Your task to perform on an android device: make emails show in primary in the gmail app Image 0: 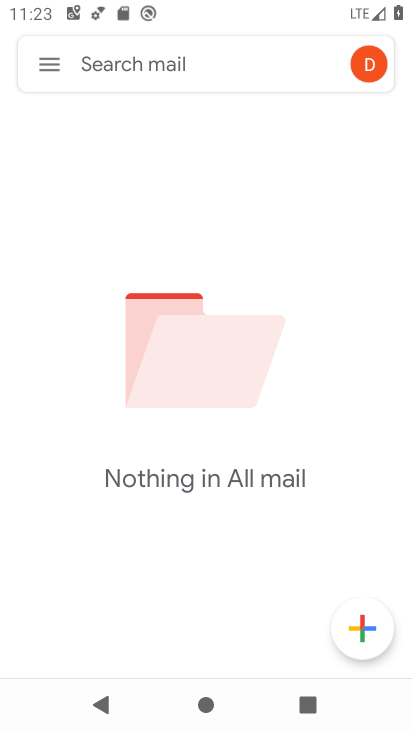
Step 0: click (46, 63)
Your task to perform on an android device: make emails show in primary in the gmail app Image 1: 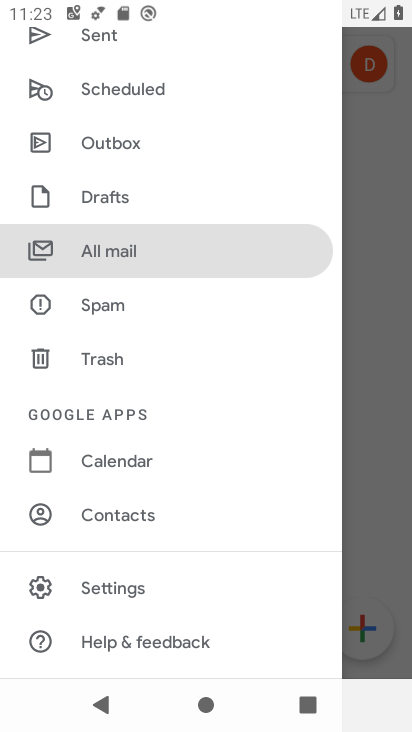
Step 1: click (111, 586)
Your task to perform on an android device: make emails show in primary in the gmail app Image 2: 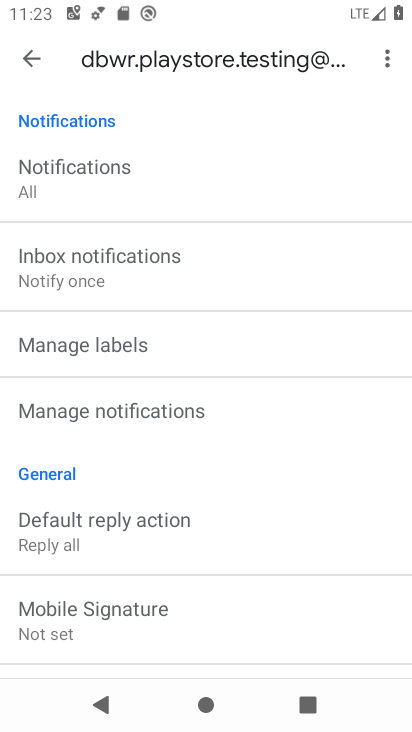
Step 2: click (126, 410)
Your task to perform on an android device: make emails show in primary in the gmail app Image 3: 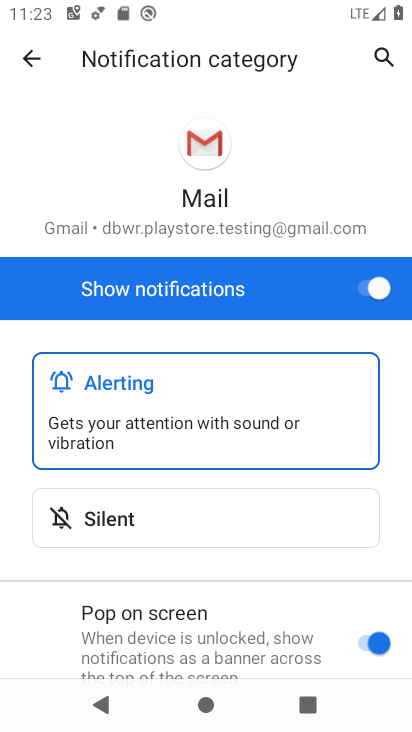
Step 3: press back button
Your task to perform on an android device: make emails show in primary in the gmail app Image 4: 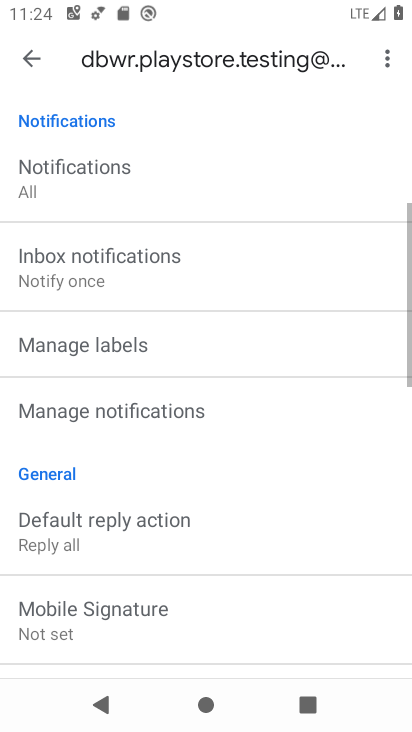
Step 4: drag from (162, 179) to (184, 721)
Your task to perform on an android device: make emails show in primary in the gmail app Image 5: 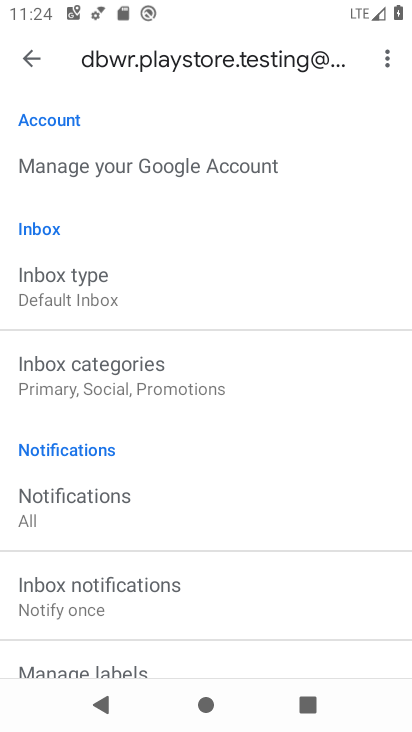
Step 5: click (69, 275)
Your task to perform on an android device: make emails show in primary in the gmail app Image 6: 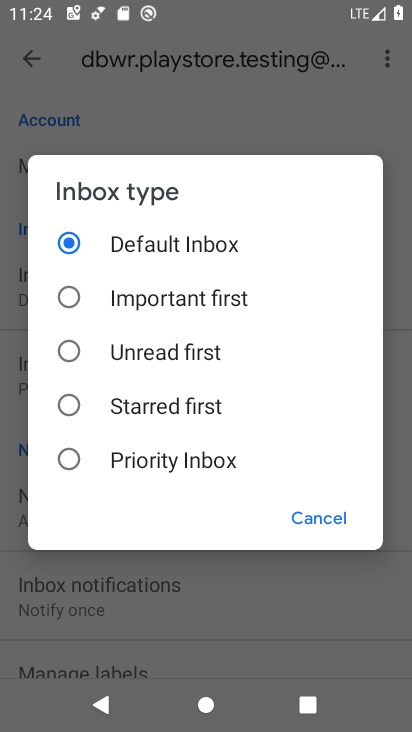
Step 6: click (308, 514)
Your task to perform on an android device: make emails show in primary in the gmail app Image 7: 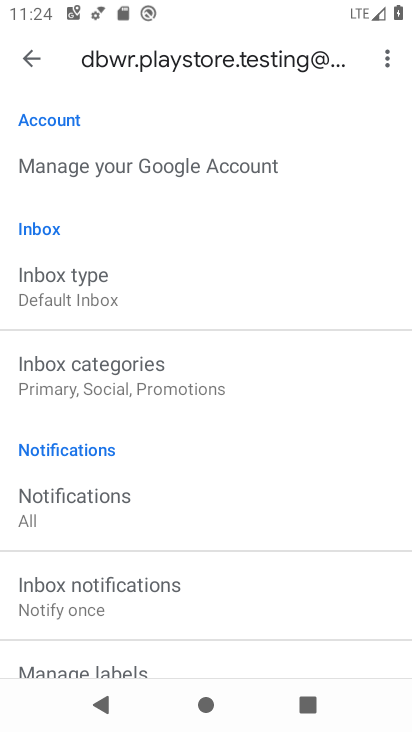
Step 7: click (83, 376)
Your task to perform on an android device: make emails show in primary in the gmail app Image 8: 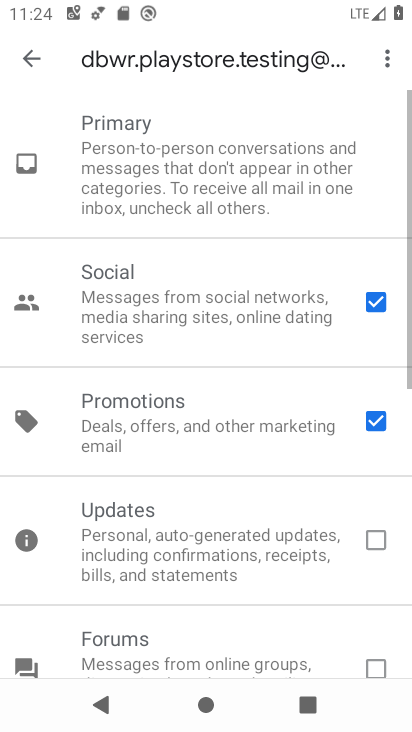
Step 8: click (373, 426)
Your task to perform on an android device: make emails show in primary in the gmail app Image 9: 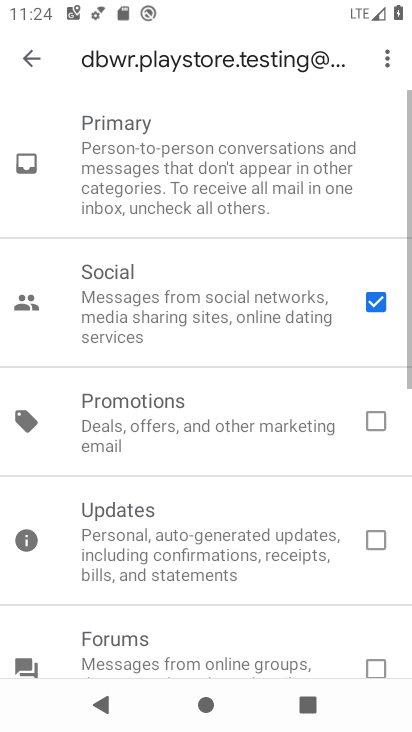
Step 9: click (369, 300)
Your task to perform on an android device: make emails show in primary in the gmail app Image 10: 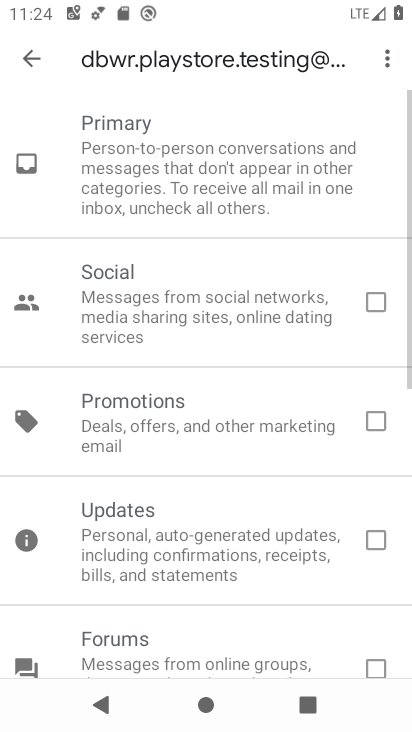
Step 10: task complete